Your task to perform on an android device: turn off smart reply in the gmail app Image 0: 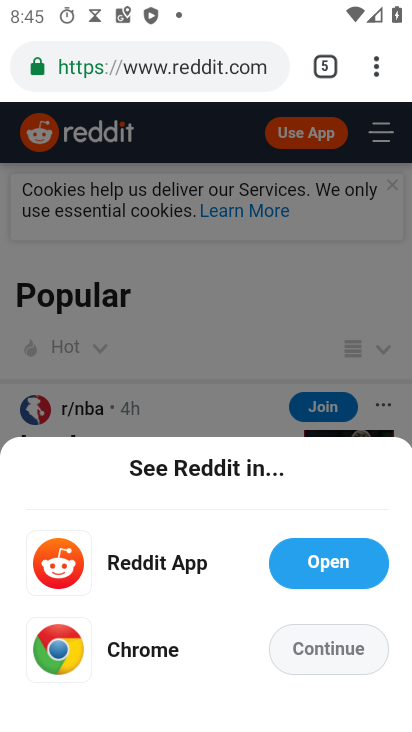
Step 0: press home button
Your task to perform on an android device: turn off smart reply in the gmail app Image 1: 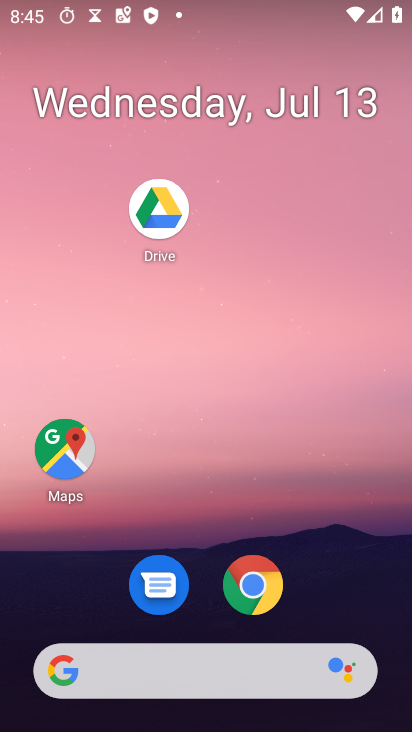
Step 1: drag from (210, 656) to (283, 327)
Your task to perform on an android device: turn off smart reply in the gmail app Image 2: 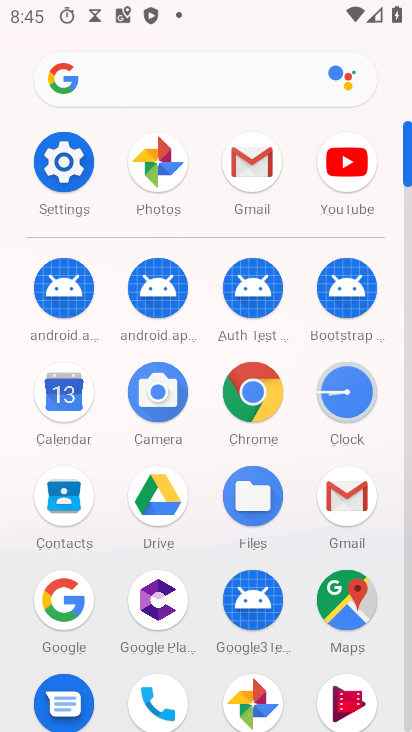
Step 2: click (258, 176)
Your task to perform on an android device: turn off smart reply in the gmail app Image 3: 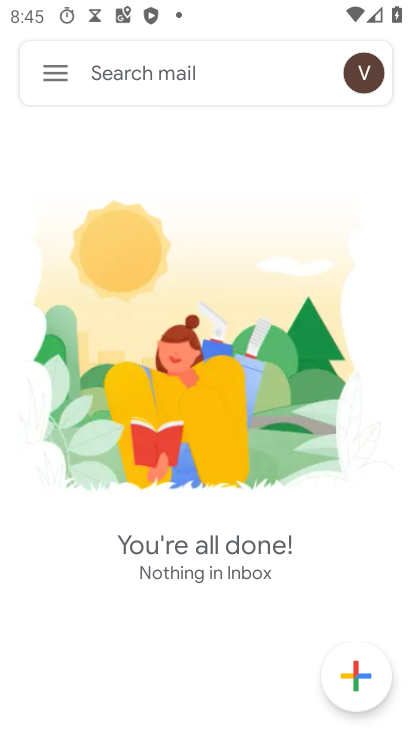
Step 3: click (55, 73)
Your task to perform on an android device: turn off smart reply in the gmail app Image 4: 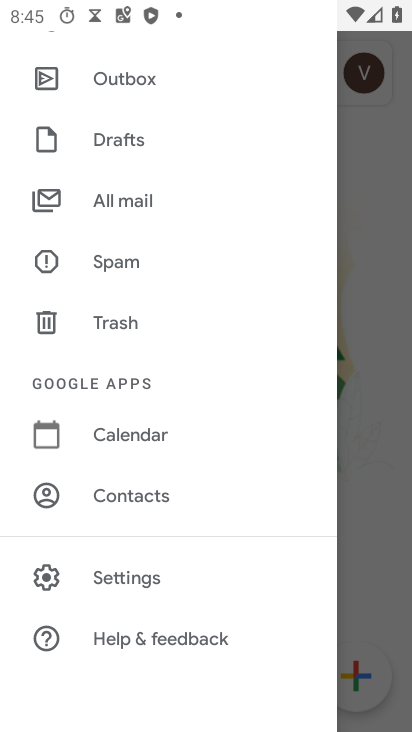
Step 4: click (113, 578)
Your task to perform on an android device: turn off smart reply in the gmail app Image 5: 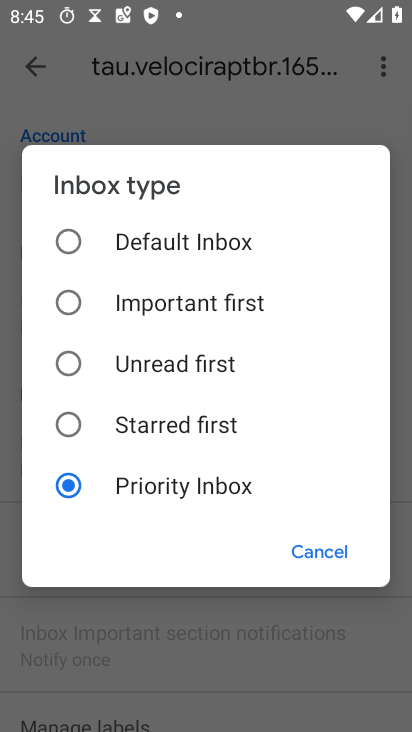
Step 5: click (318, 558)
Your task to perform on an android device: turn off smart reply in the gmail app Image 6: 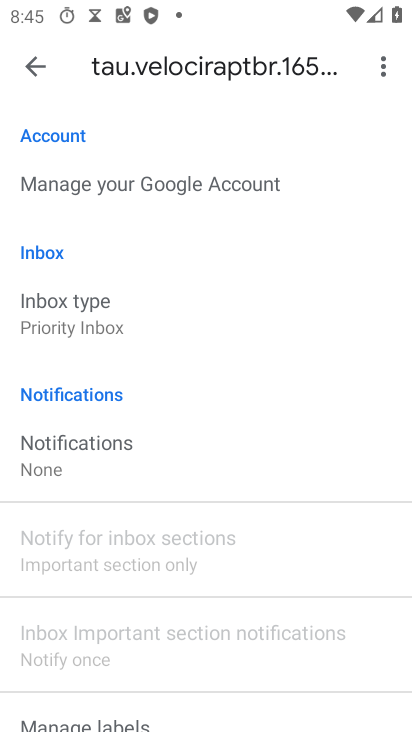
Step 6: drag from (256, 655) to (392, 134)
Your task to perform on an android device: turn off smart reply in the gmail app Image 7: 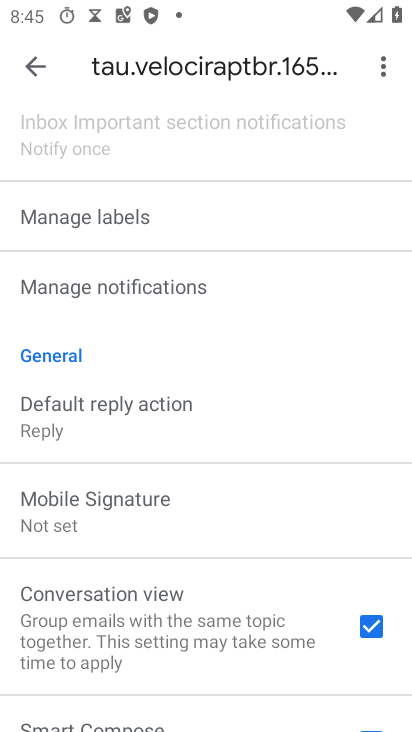
Step 7: drag from (216, 654) to (348, 338)
Your task to perform on an android device: turn off smart reply in the gmail app Image 8: 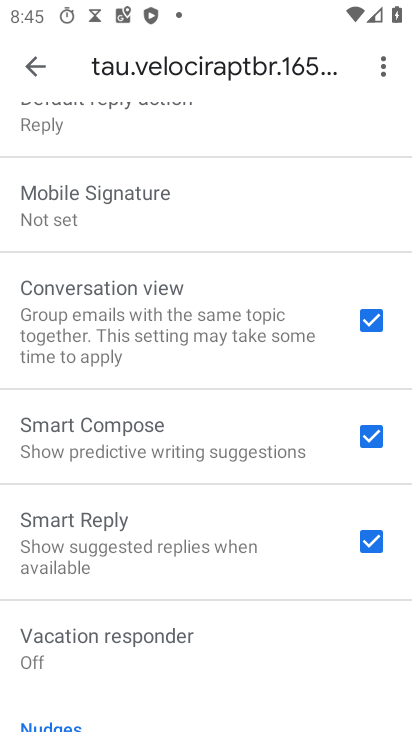
Step 8: drag from (249, 484) to (265, 422)
Your task to perform on an android device: turn off smart reply in the gmail app Image 9: 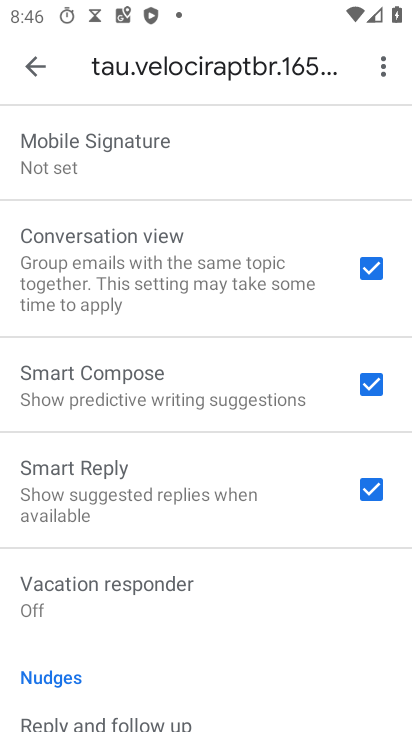
Step 9: click (380, 494)
Your task to perform on an android device: turn off smart reply in the gmail app Image 10: 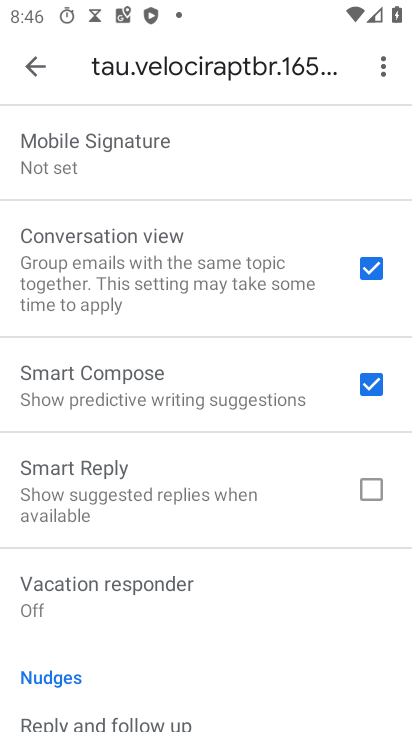
Step 10: task complete